Your task to perform on an android device: find photos in the google photos app Image 0: 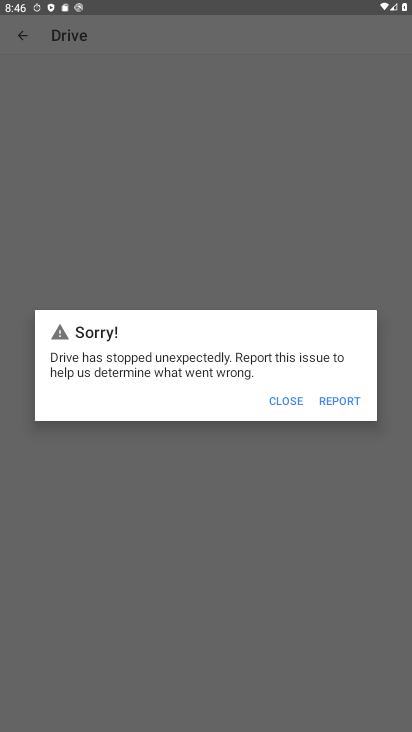
Step 0: press home button
Your task to perform on an android device: find photos in the google photos app Image 1: 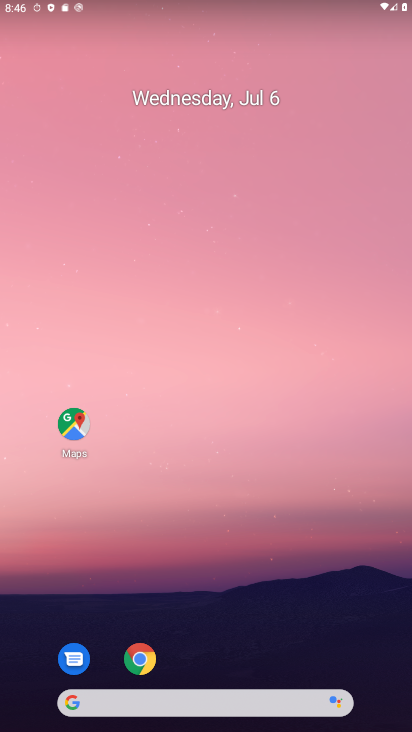
Step 1: drag from (333, 630) to (328, 124)
Your task to perform on an android device: find photos in the google photos app Image 2: 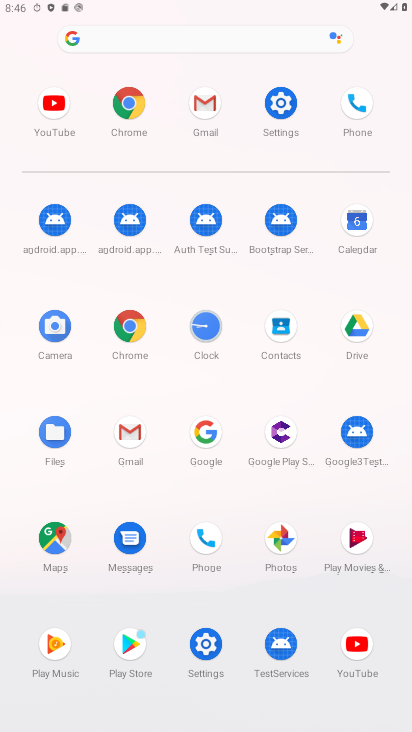
Step 2: click (281, 538)
Your task to perform on an android device: find photos in the google photos app Image 3: 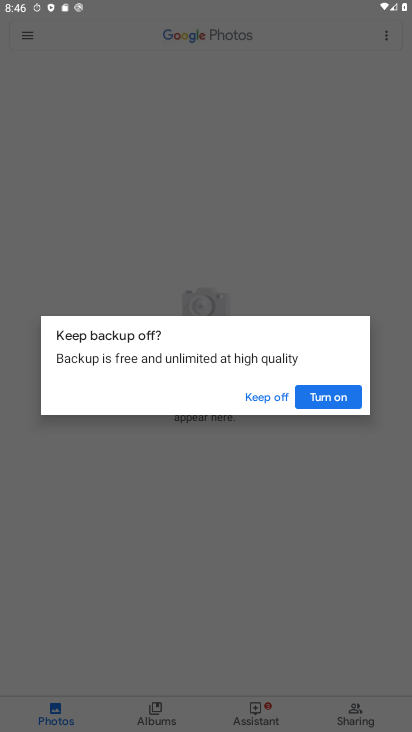
Step 3: click (331, 397)
Your task to perform on an android device: find photos in the google photos app Image 4: 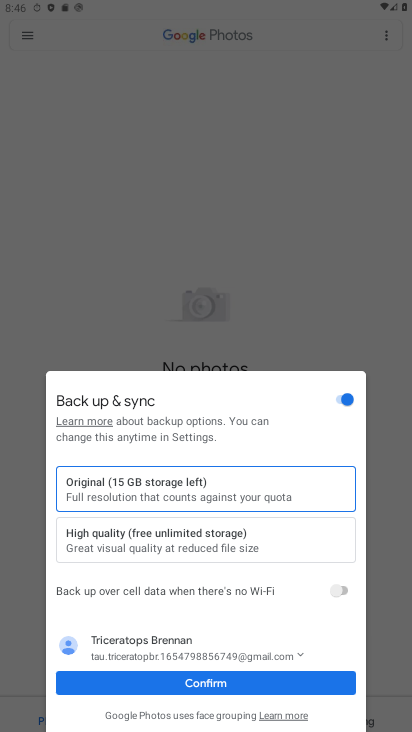
Step 4: click (242, 676)
Your task to perform on an android device: find photos in the google photos app Image 5: 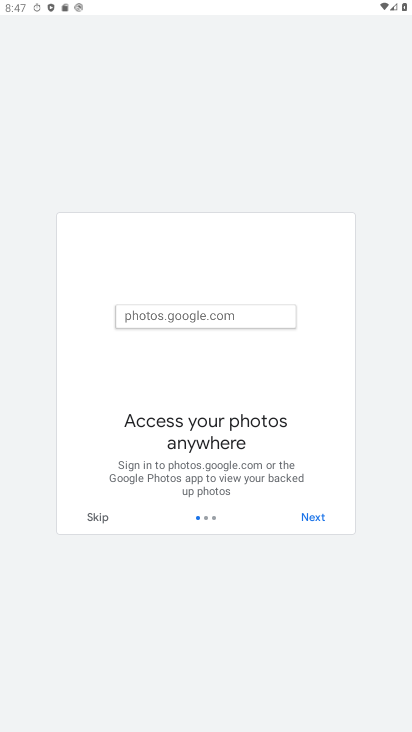
Step 5: click (313, 515)
Your task to perform on an android device: find photos in the google photos app Image 6: 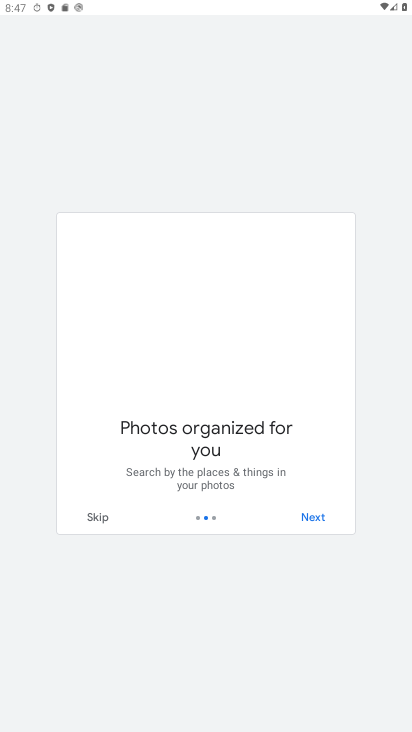
Step 6: click (313, 515)
Your task to perform on an android device: find photos in the google photos app Image 7: 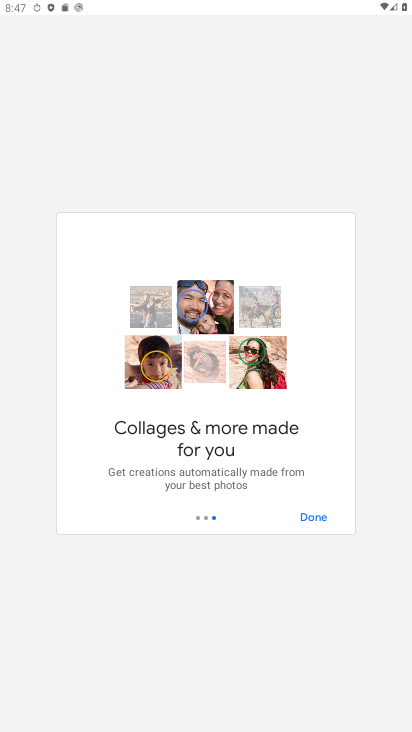
Step 7: click (313, 515)
Your task to perform on an android device: find photos in the google photos app Image 8: 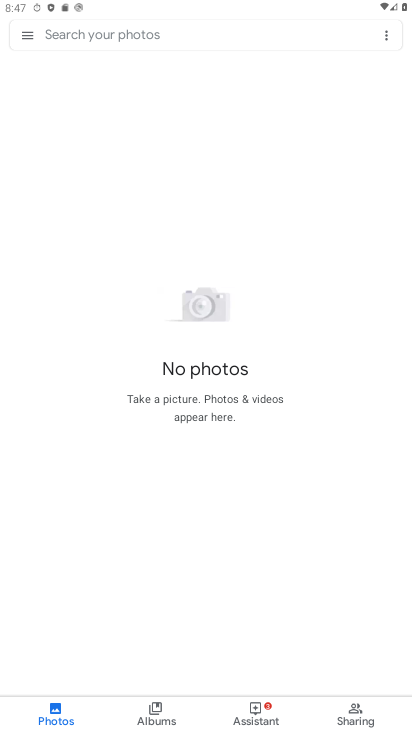
Step 8: task complete